Your task to perform on an android device: Go to Reddit.com Image 0: 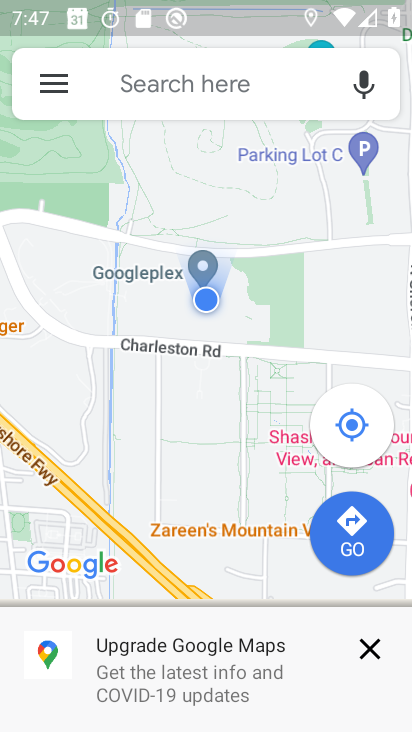
Step 0: press home button
Your task to perform on an android device: Go to Reddit.com Image 1: 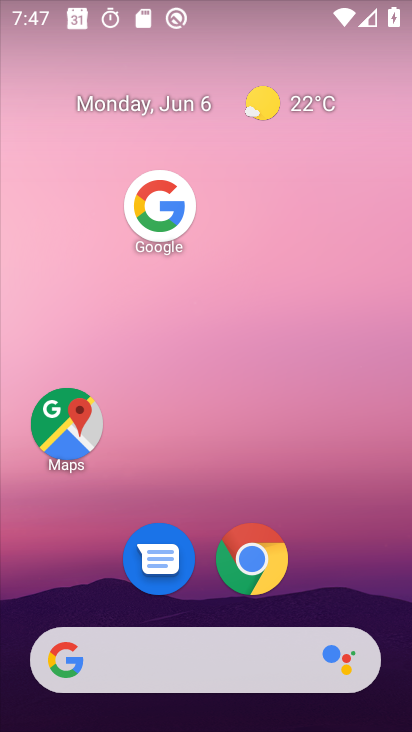
Step 1: click (262, 554)
Your task to perform on an android device: Go to Reddit.com Image 2: 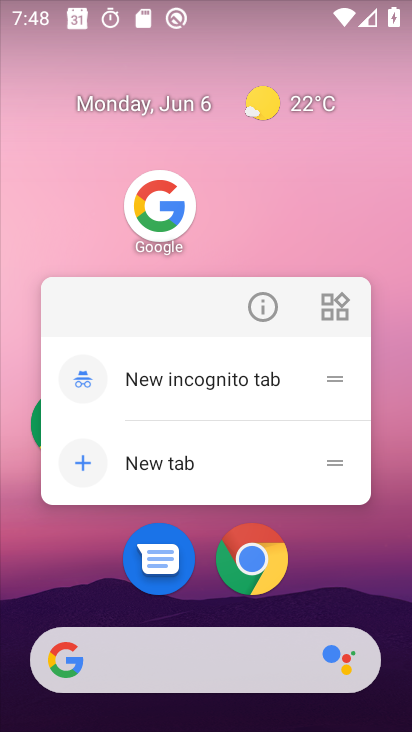
Step 2: click (253, 556)
Your task to perform on an android device: Go to Reddit.com Image 3: 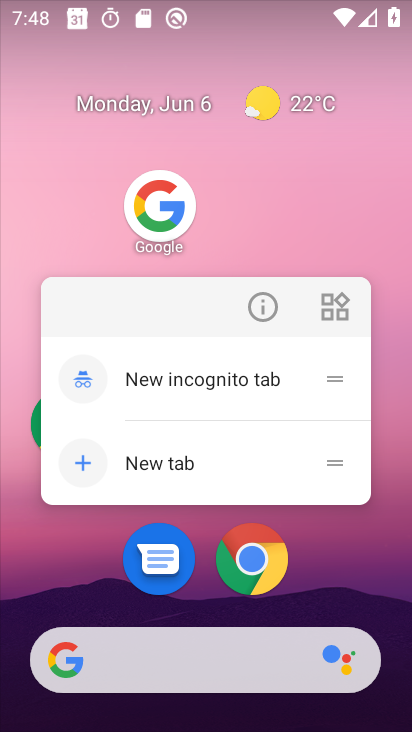
Step 3: click (253, 313)
Your task to perform on an android device: Go to Reddit.com Image 4: 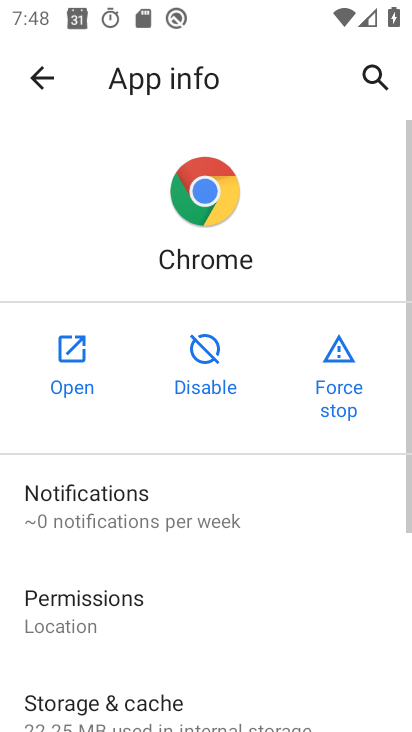
Step 4: click (61, 376)
Your task to perform on an android device: Go to Reddit.com Image 5: 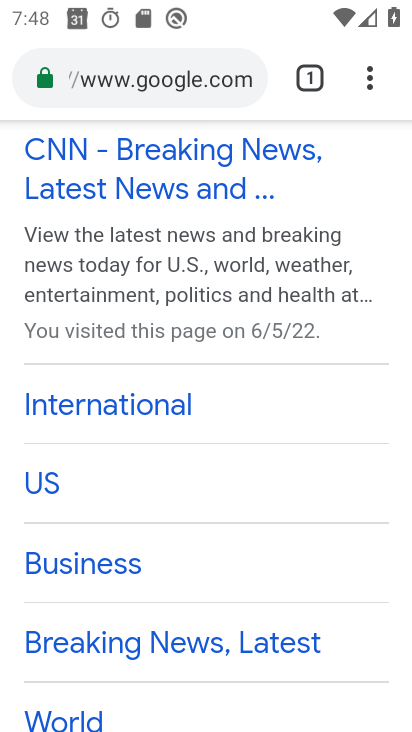
Step 5: click (183, 87)
Your task to perform on an android device: Go to Reddit.com Image 6: 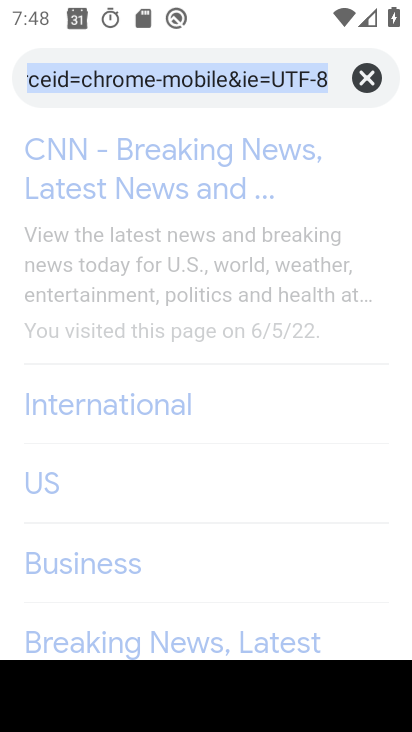
Step 6: type "Reddit.com"
Your task to perform on an android device: Go to Reddit.com Image 7: 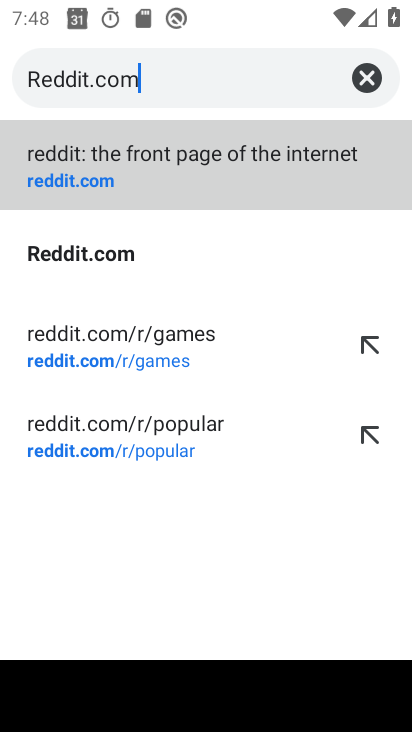
Step 7: click (112, 255)
Your task to perform on an android device: Go to Reddit.com Image 8: 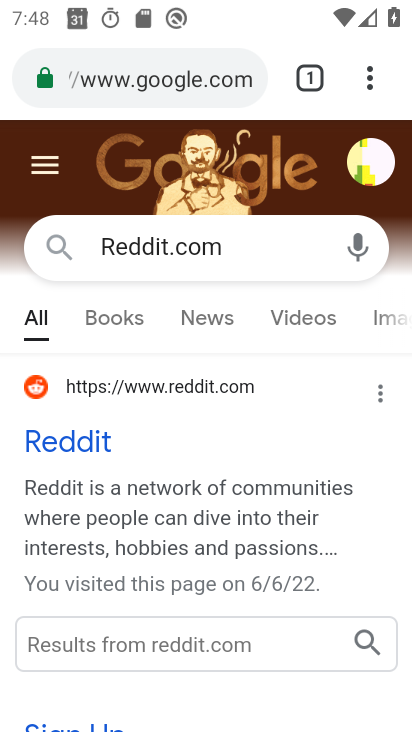
Step 8: task complete